Your task to perform on an android device: Go to eBay Image 0: 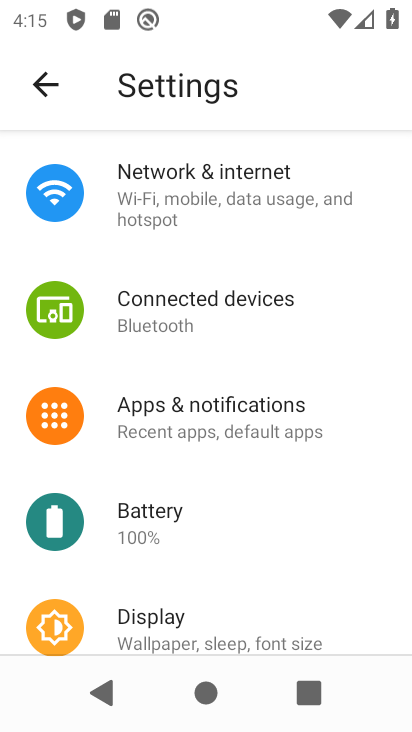
Step 0: press home button
Your task to perform on an android device: Go to eBay Image 1: 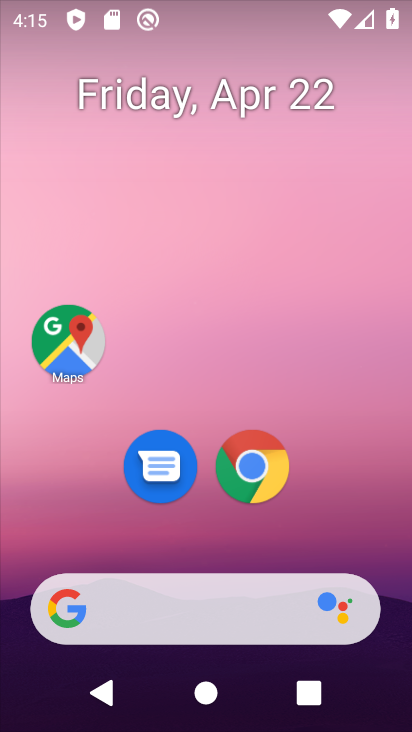
Step 1: drag from (352, 539) to (324, 277)
Your task to perform on an android device: Go to eBay Image 2: 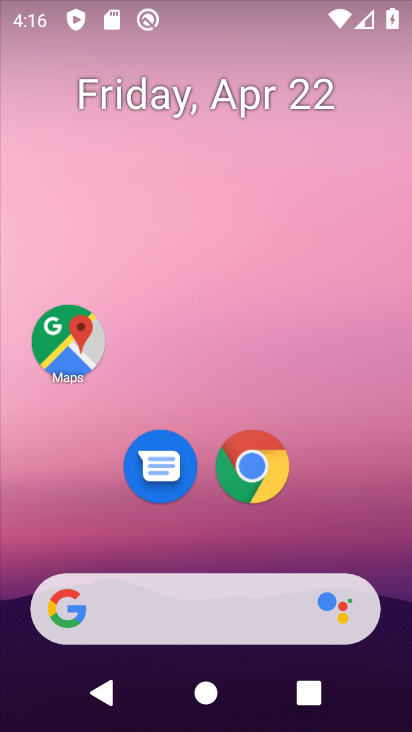
Step 2: click (262, 471)
Your task to perform on an android device: Go to eBay Image 3: 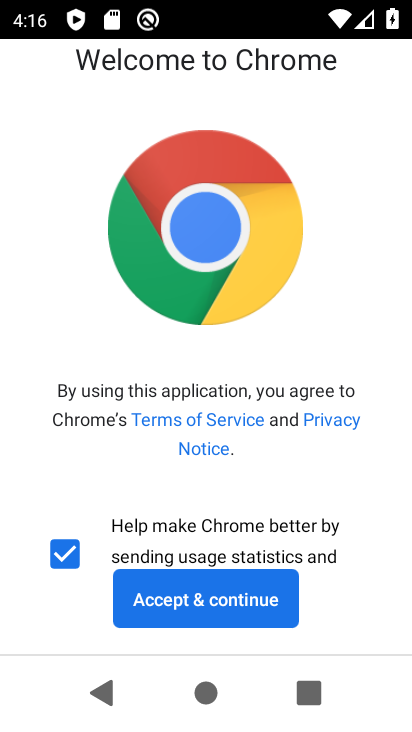
Step 3: click (225, 596)
Your task to perform on an android device: Go to eBay Image 4: 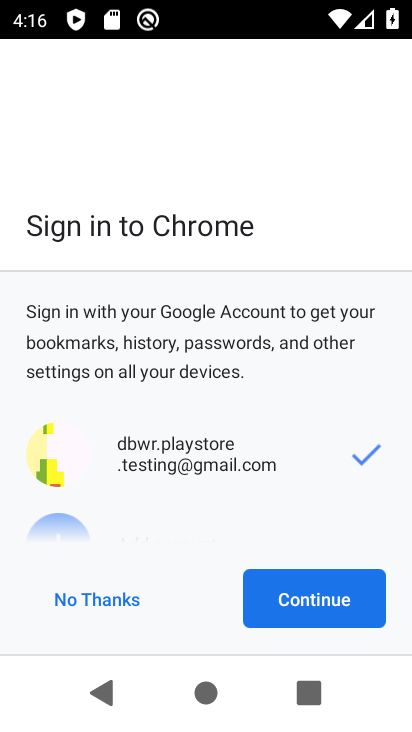
Step 4: click (292, 607)
Your task to perform on an android device: Go to eBay Image 5: 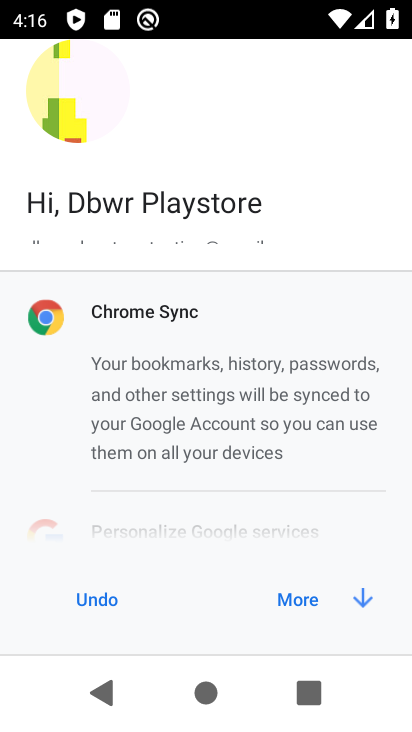
Step 5: click (292, 607)
Your task to perform on an android device: Go to eBay Image 6: 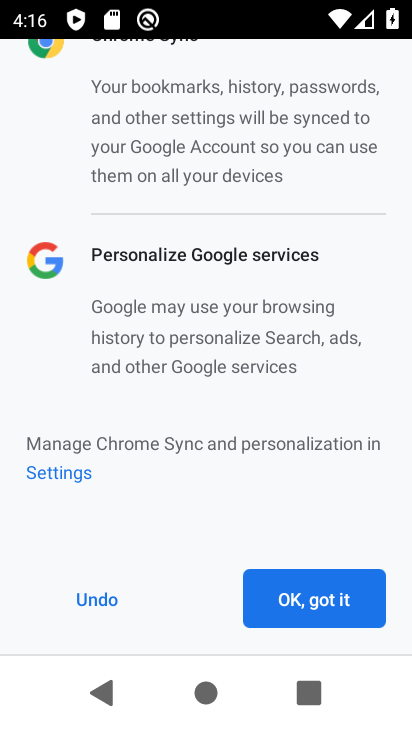
Step 6: click (292, 607)
Your task to perform on an android device: Go to eBay Image 7: 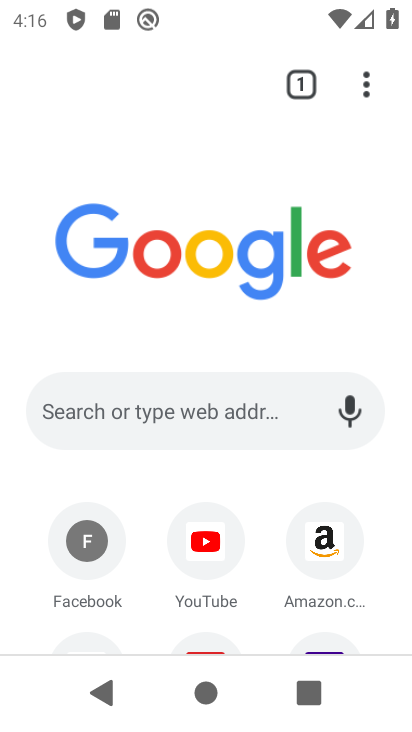
Step 7: drag from (396, 502) to (363, 239)
Your task to perform on an android device: Go to eBay Image 8: 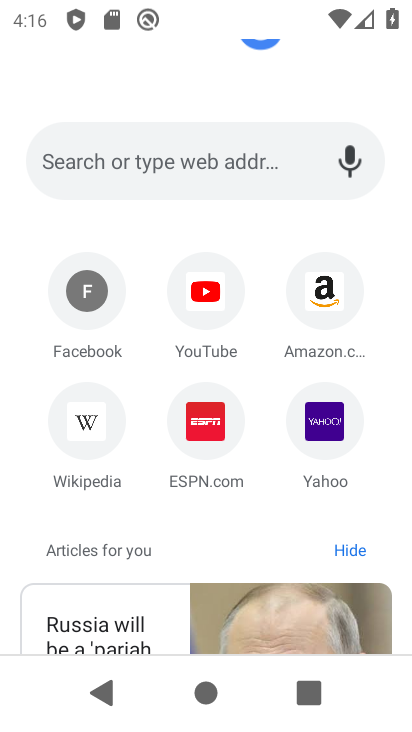
Step 8: click (174, 179)
Your task to perform on an android device: Go to eBay Image 9: 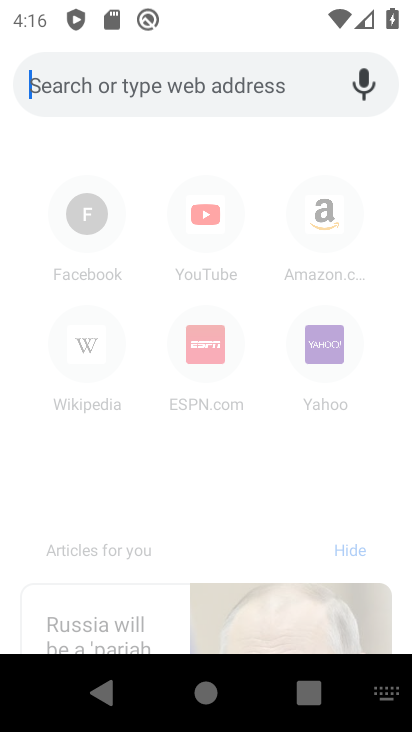
Step 9: type "eBay"
Your task to perform on an android device: Go to eBay Image 10: 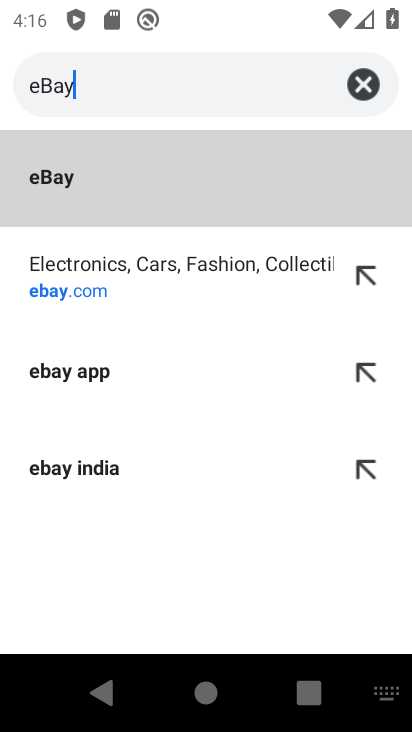
Step 10: click (102, 286)
Your task to perform on an android device: Go to eBay Image 11: 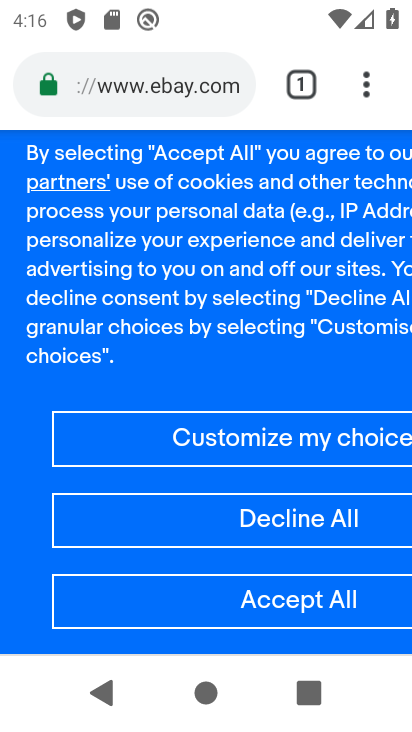
Step 11: task complete